Your task to perform on an android device: Go to accessibility settings Image 0: 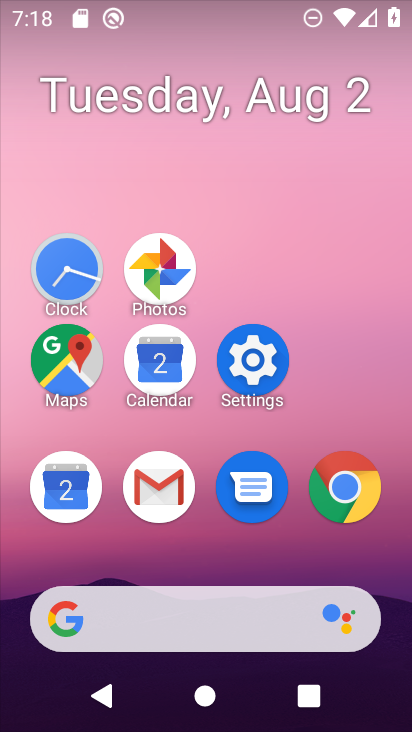
Step 0: click (254, 363)
Your task to perform on an android device: Go to accessibility settings Image 1: 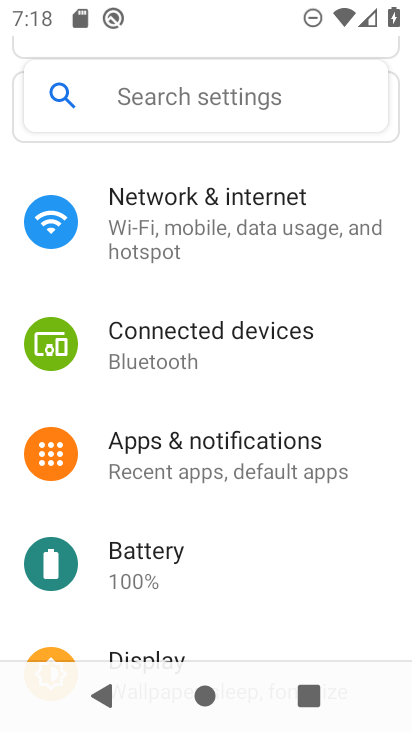
Step 1: drag from (242, 619) to (231, 238)
Your task to perform on an android device: Go to accessibility settings Image 2: 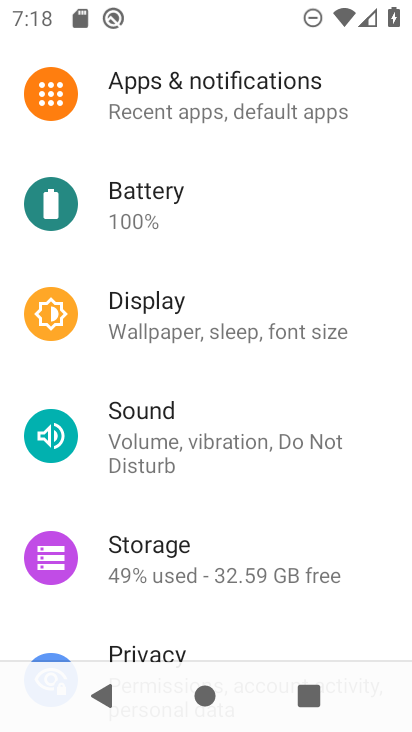
Step 2: drag from (239, 504) to (231, 247)
Your task to perform on an android device: Go to accessibility settings Image 3: 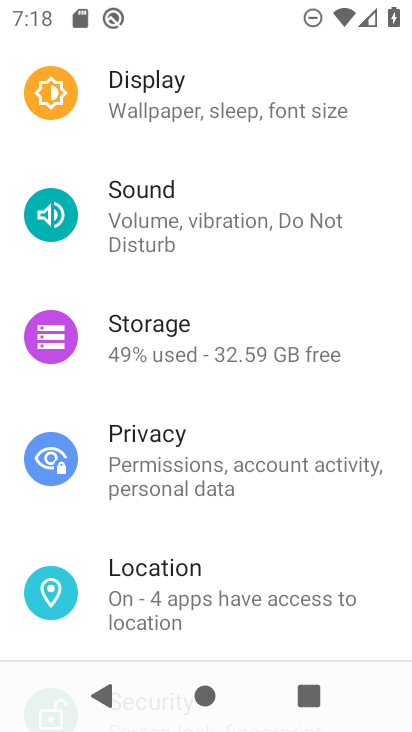
Step 3: drag from (240, 540) to (199, 61)
Your task to perform on an android device: Go to accessibility settings Image 4: 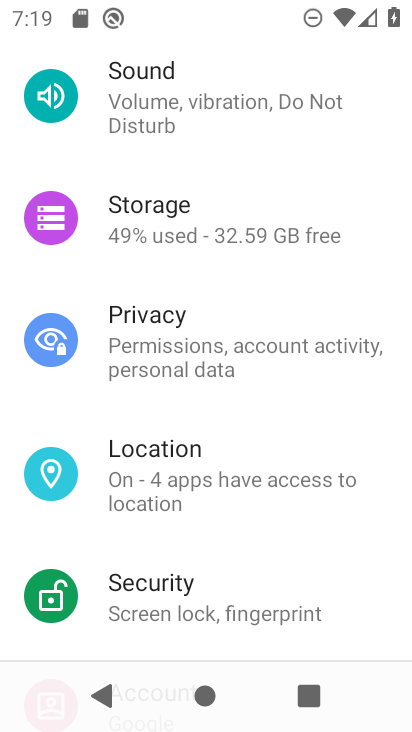
Step 4: drag from (259, 520) to (232, 224)
Your task to perform on an android device: Go to accessibility settings Image 5: 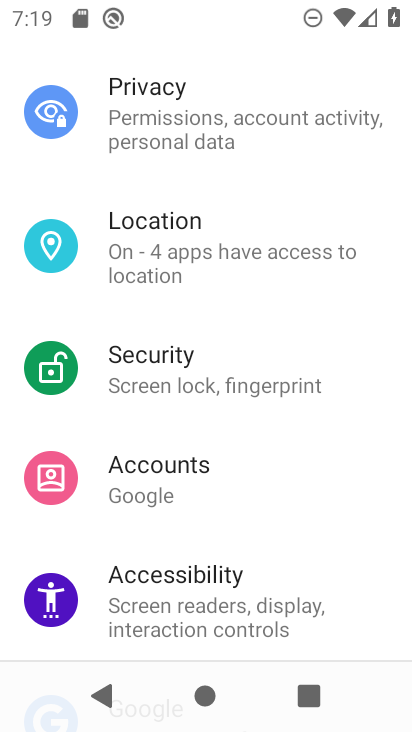
Step 5: click (162, 573)
Your task to perform on an android device: Go to accessibility settings Image 6: 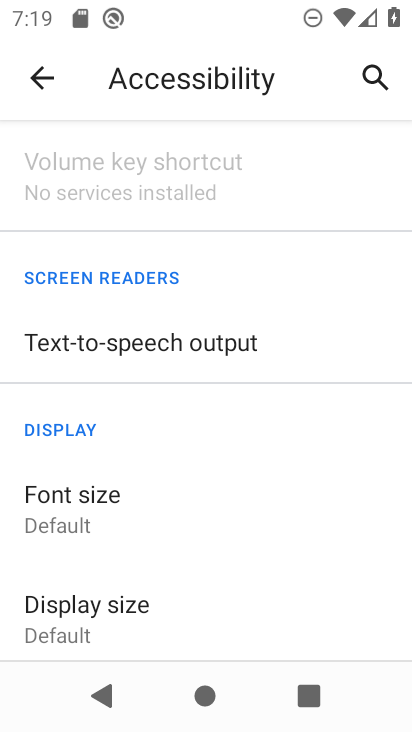
Step 6: task complete